Your task to perform on an android device: Open calendar and show me the second week of next month Image 0: 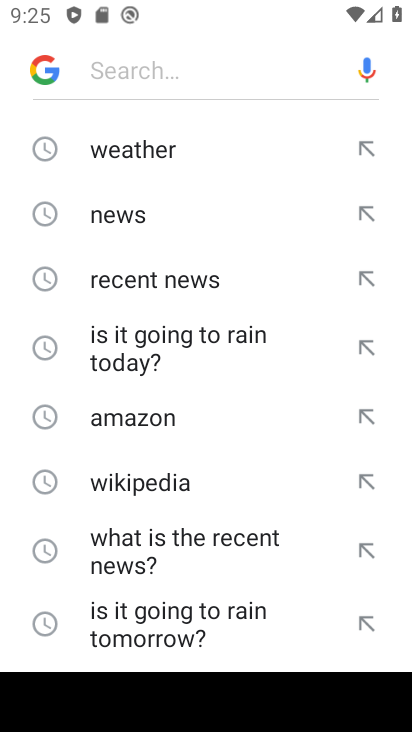
Step 0: press home button
Your task to perform on an android device: Open calendar and show me the second week of next month Image 1: 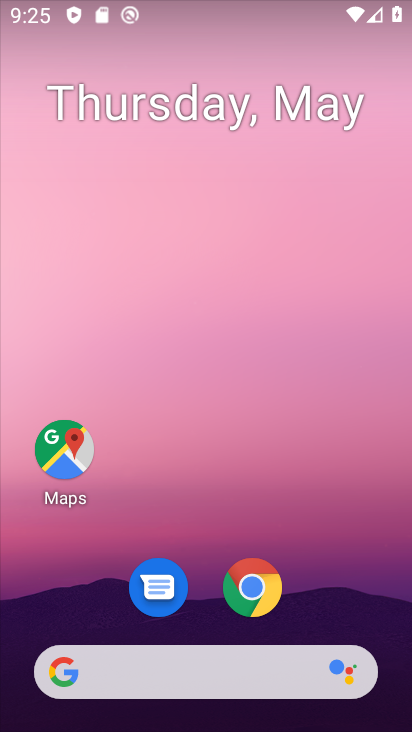
Step 1: drag from (351, 606) to (360, 1)
Your task to perform on an android device: Open calendar and show me the second week of next month Image 2: 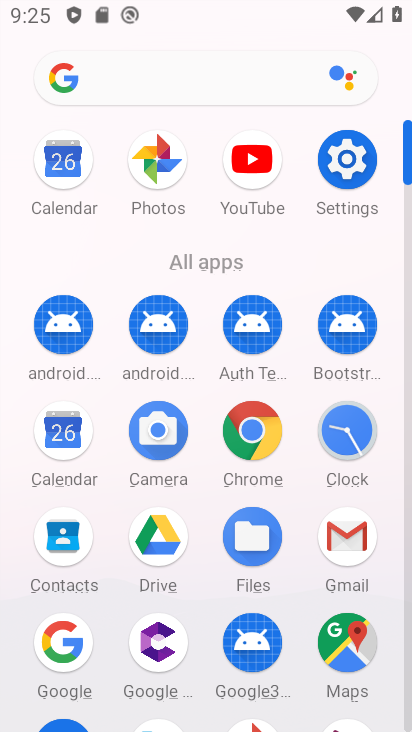
Step 2: click (52, 162)
Your task to perform on an android device: Open calendar and show me the second week of next month Image 3: 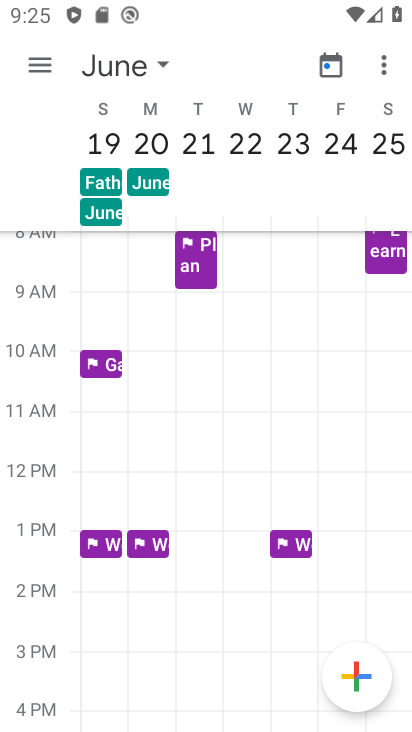
Step 3: task complete